Your task to perform on an android device: open app "Indeed Job Search" (install if not already installed) Image 0: 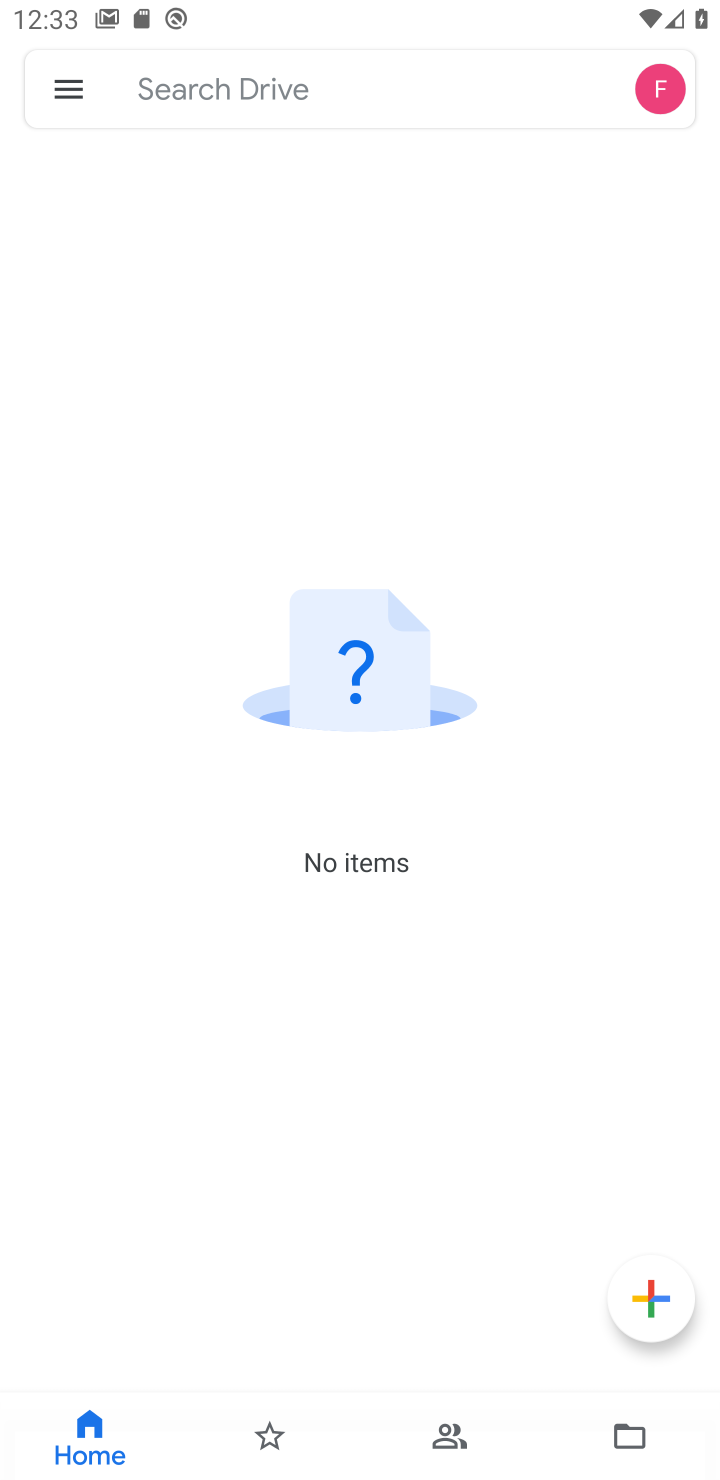
Step 0: press home button
Your task to perform on an android device: open app "Indeed Job Search" (install if not already installed) Image 1: 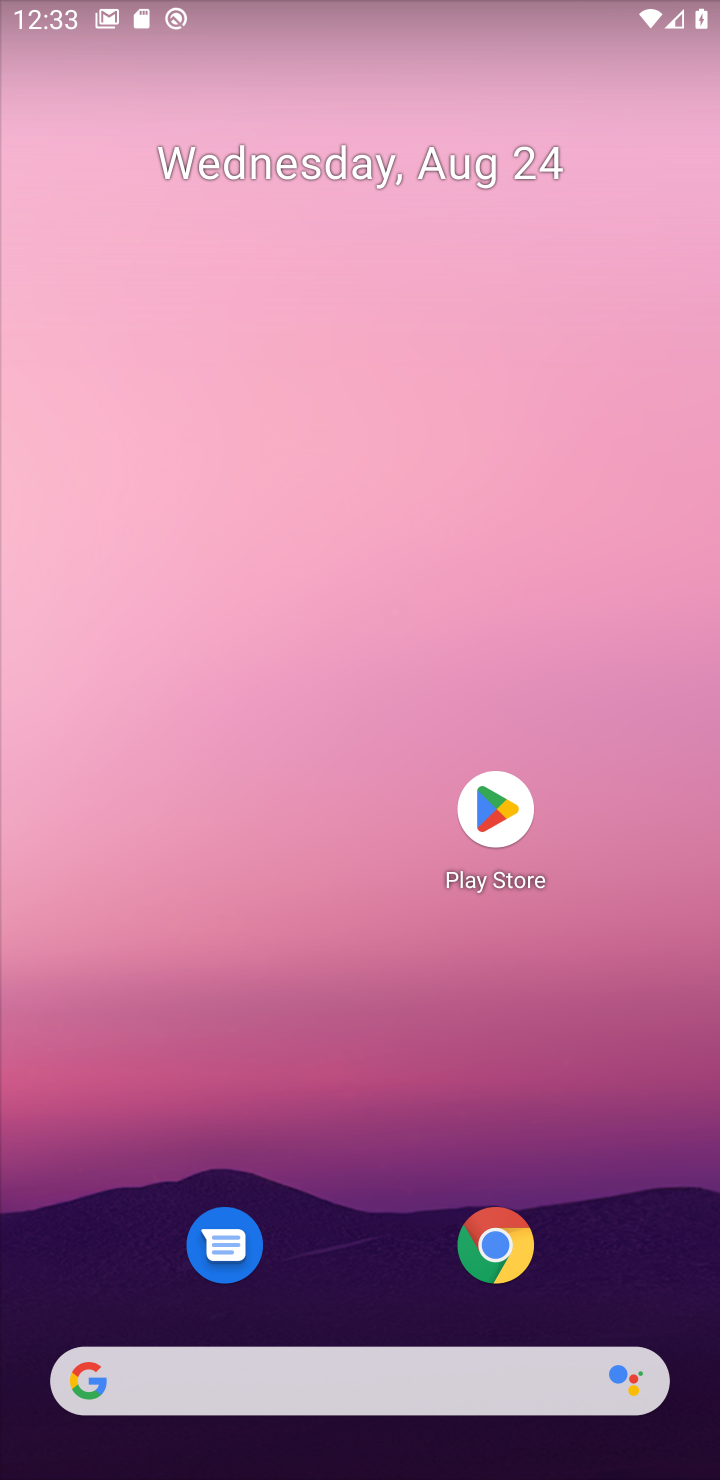
Step 1: click (483, 791)
Your task to perform on an android device: open app "Indeed Job Search" (install if not already installed) Image 2: 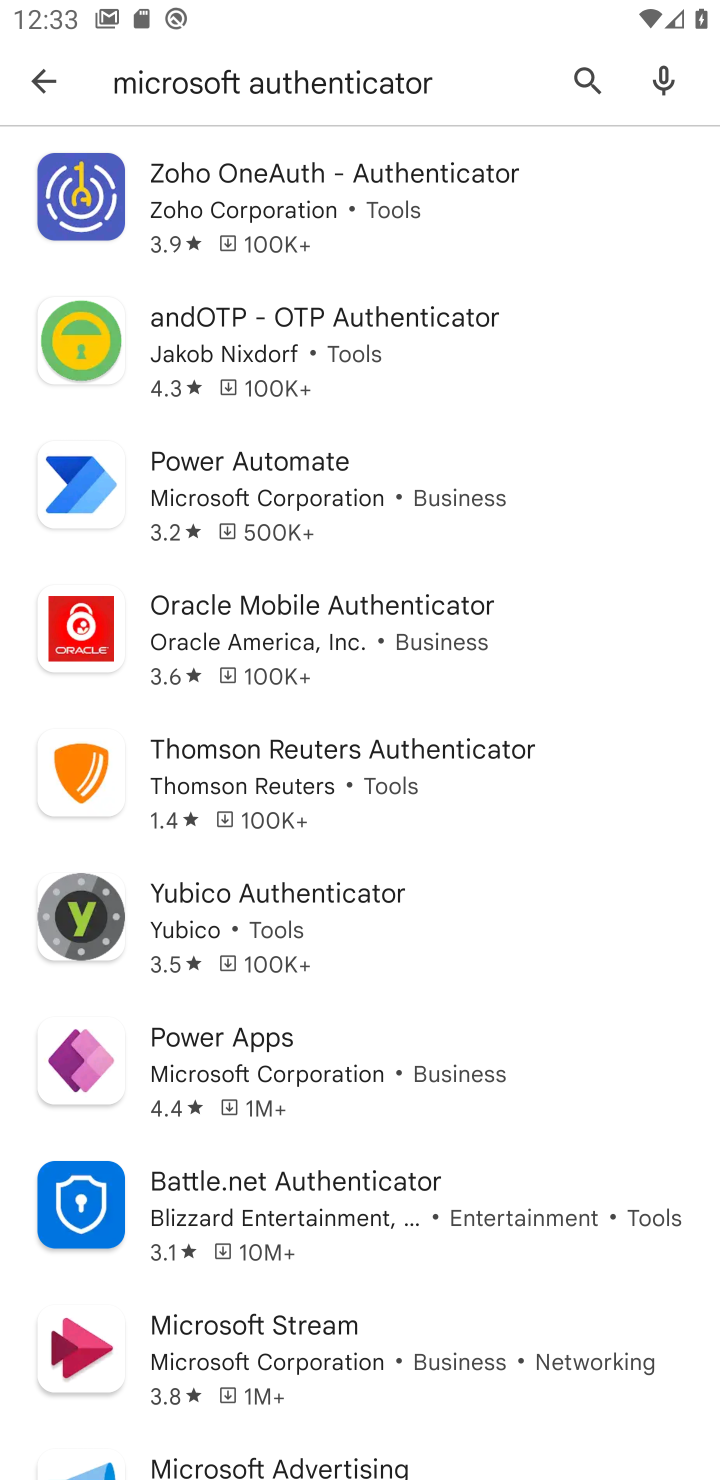
Step 2: click (590, 75)
Your task to perform on an android device: open app "Indeed Job Search" (install if not already installed) Image 3: 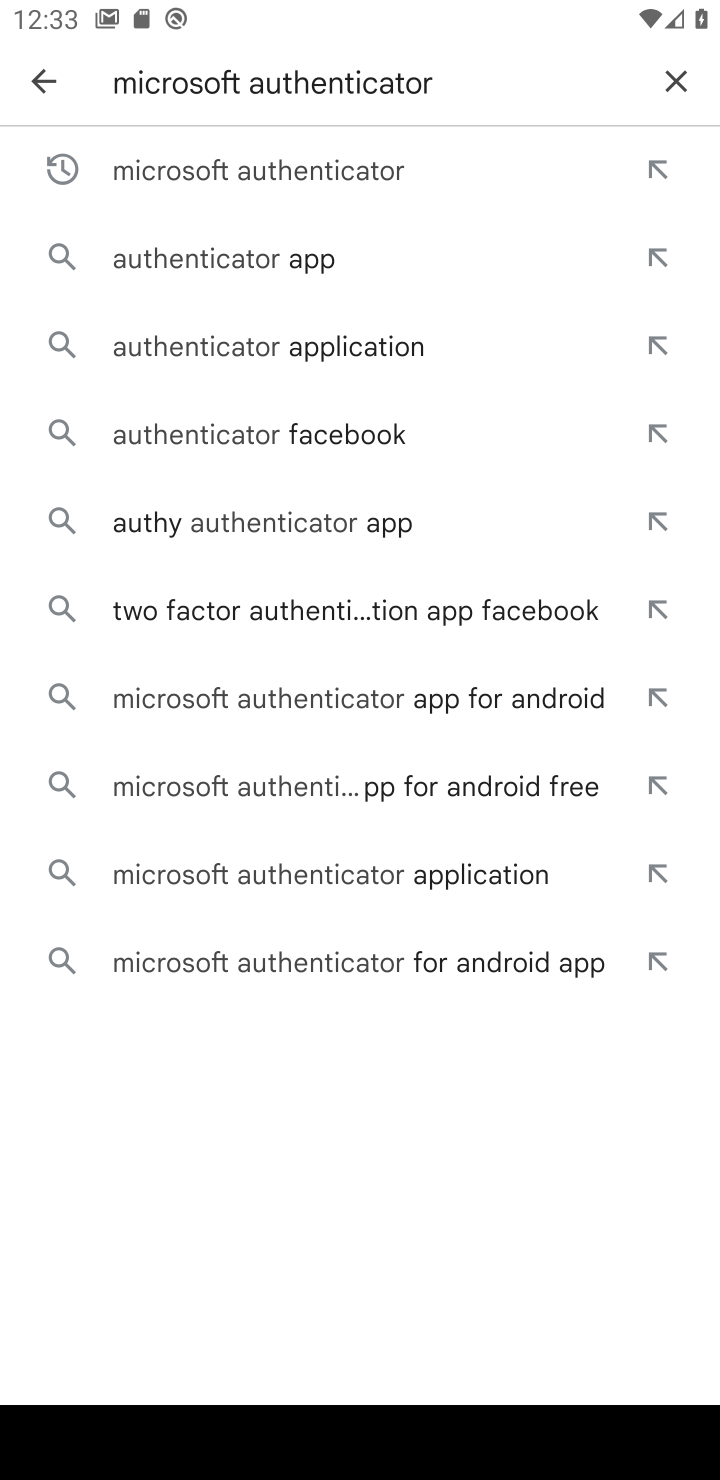
Step 3: click (679, 78)
Your task to perform on an android device: open app "Indeed Job Search" (install if not already installed) Image 4: 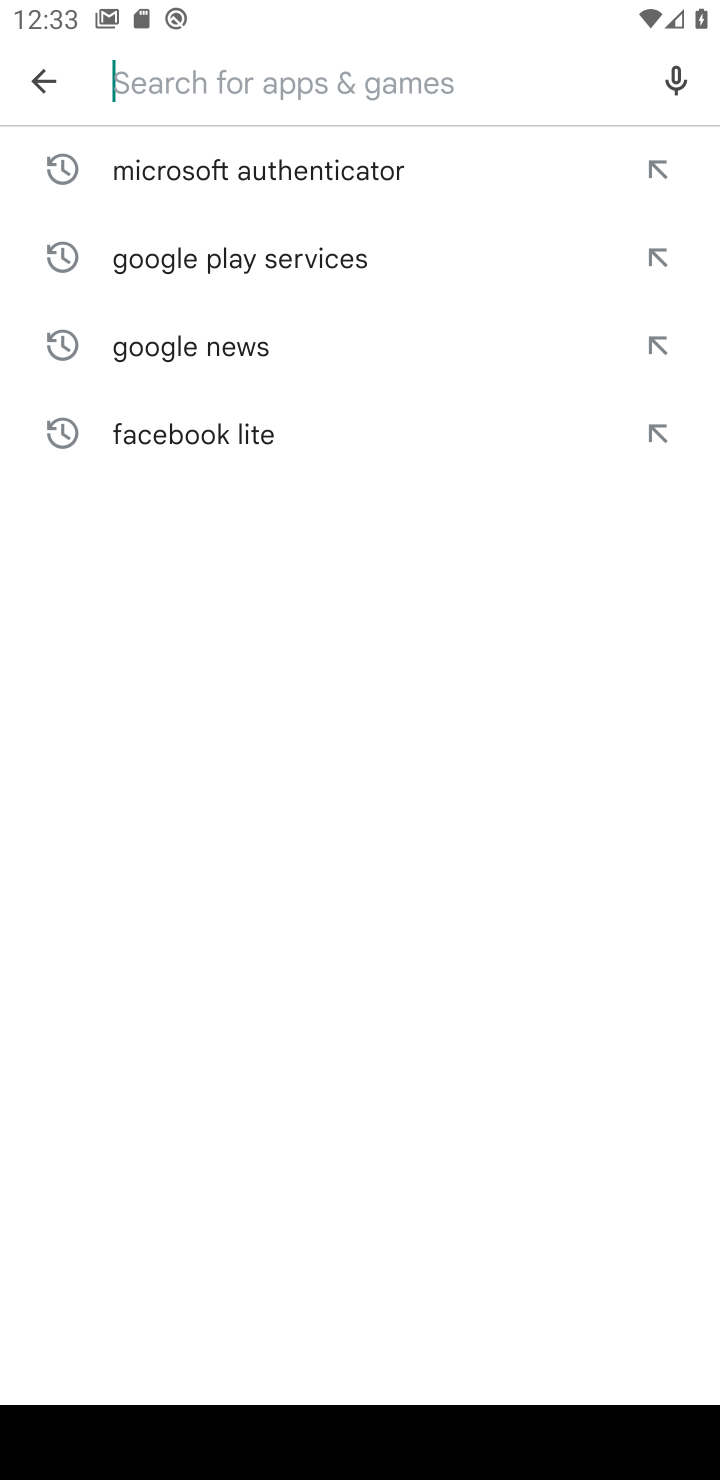
Step 4: type "Indeed Job Search"
Your task to perform on an android device: open app "Indeed Job Search" (install if not already installed) Image 5: 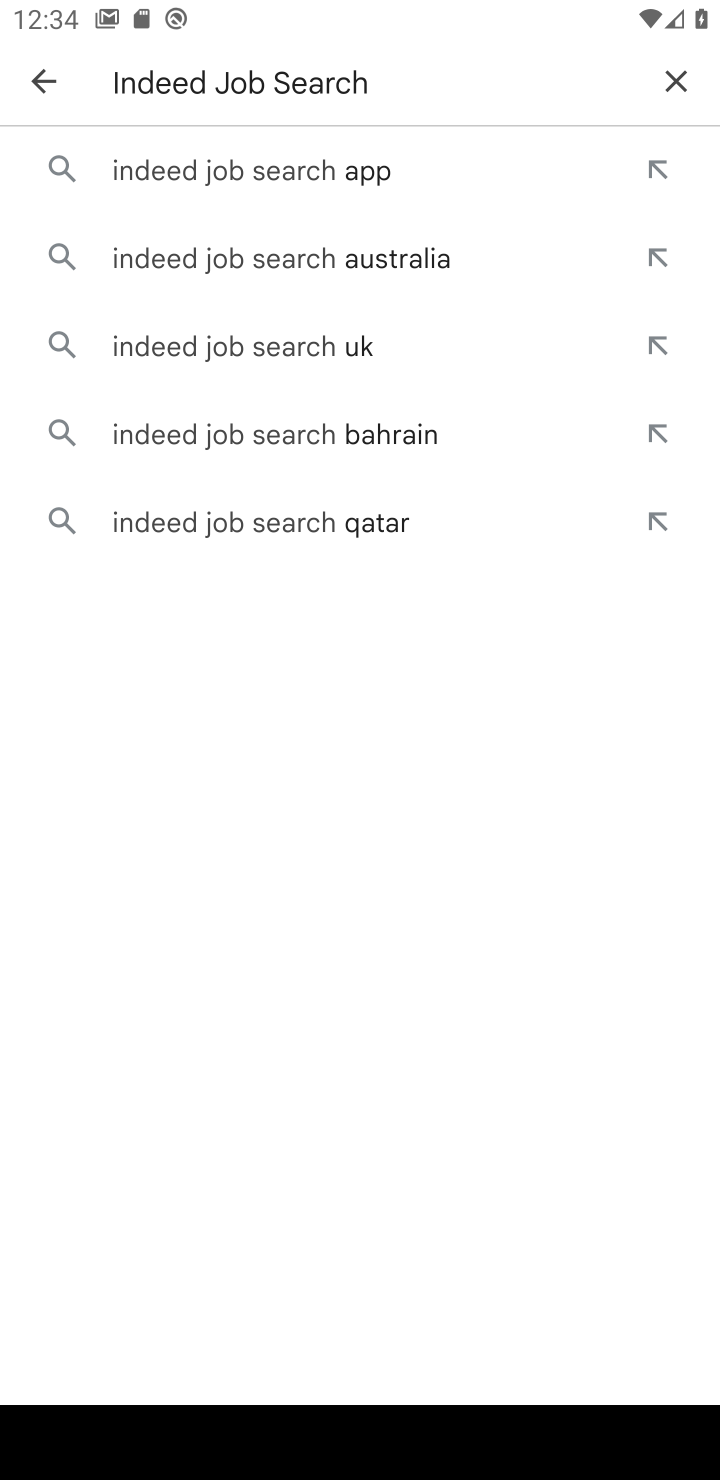
Step 5: click (337, 171)
Your task to perform on an android device: open app "Indeed Job Search" (install if not already installed) Image 6: 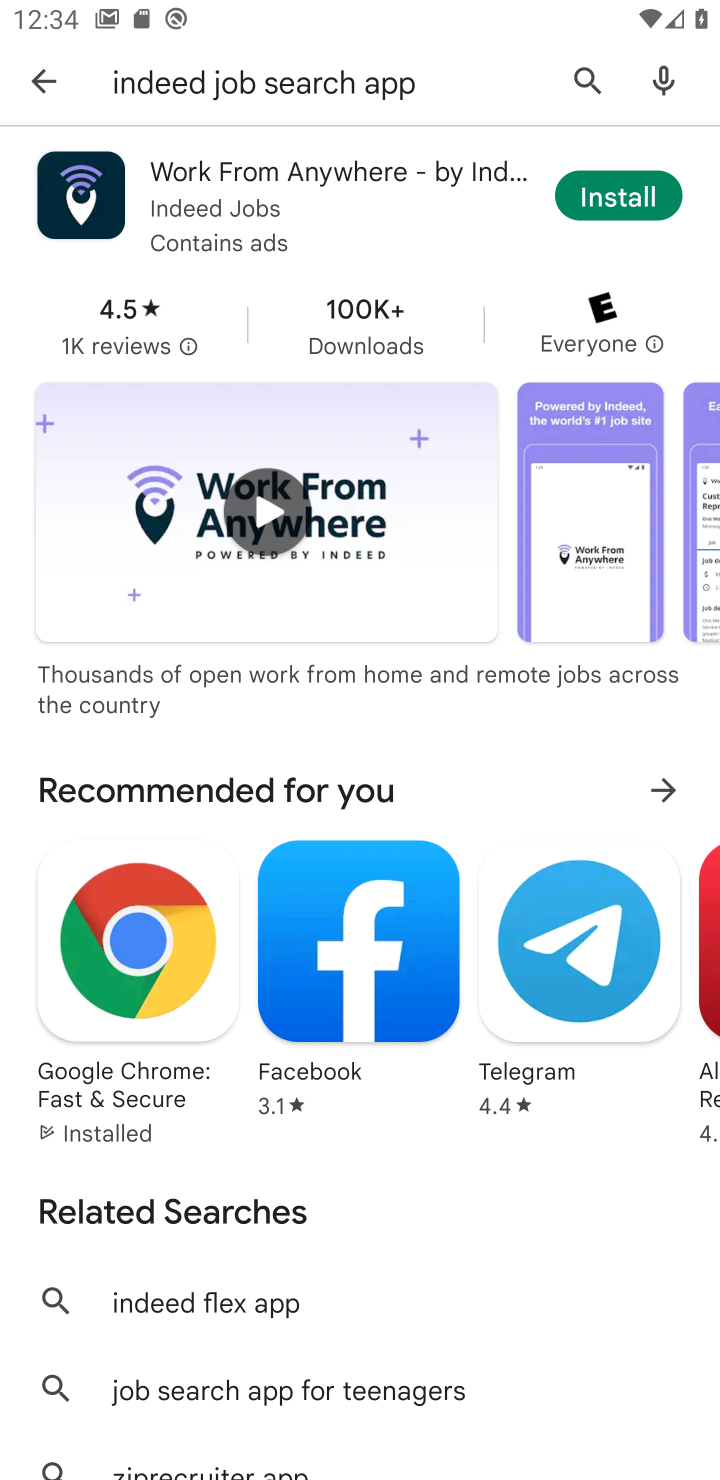
Step 6: click (651, 191)
Your task to perform on an android device: open app "Indeed Job Search" (install if not already installed) Image 7: 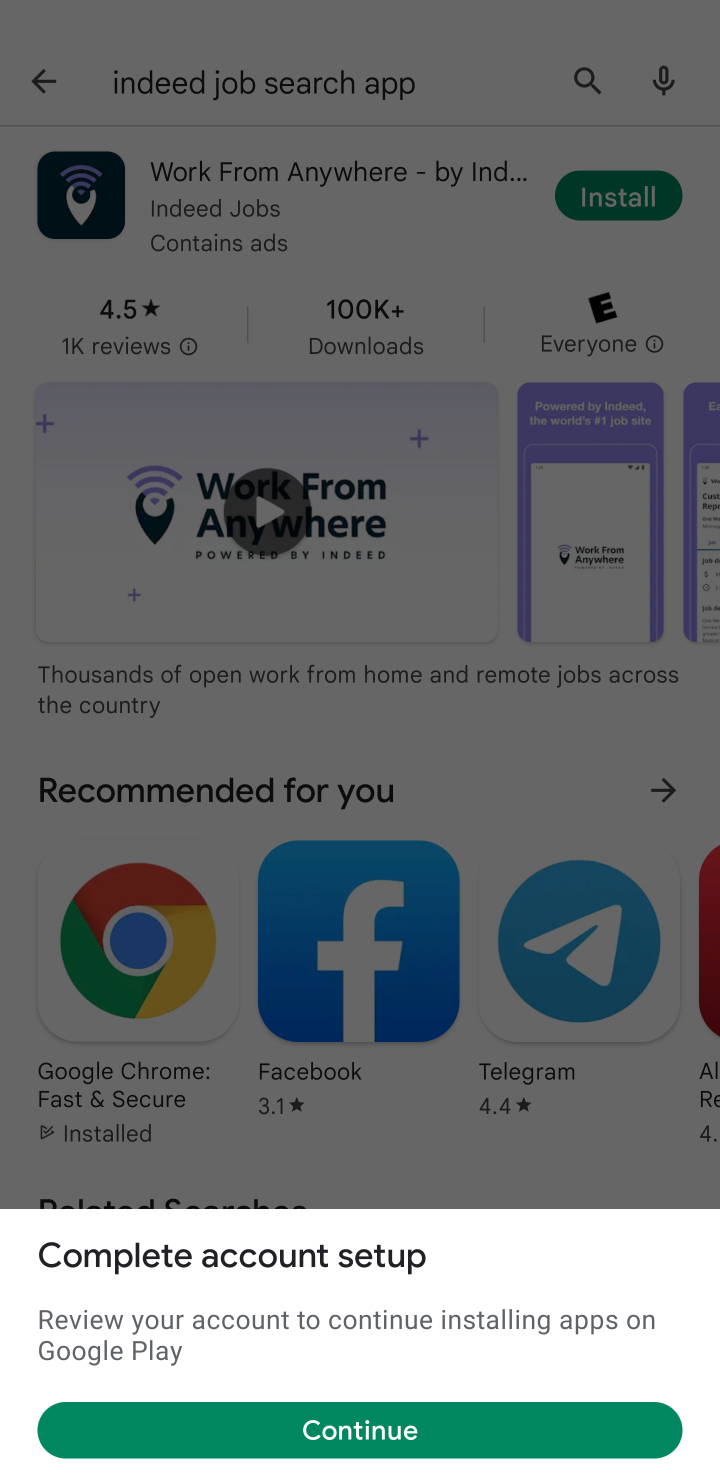
Step 7: press back button
Your task to perform on an android device: open app "Indeed Job Search" (install if not already installed) Image 8: 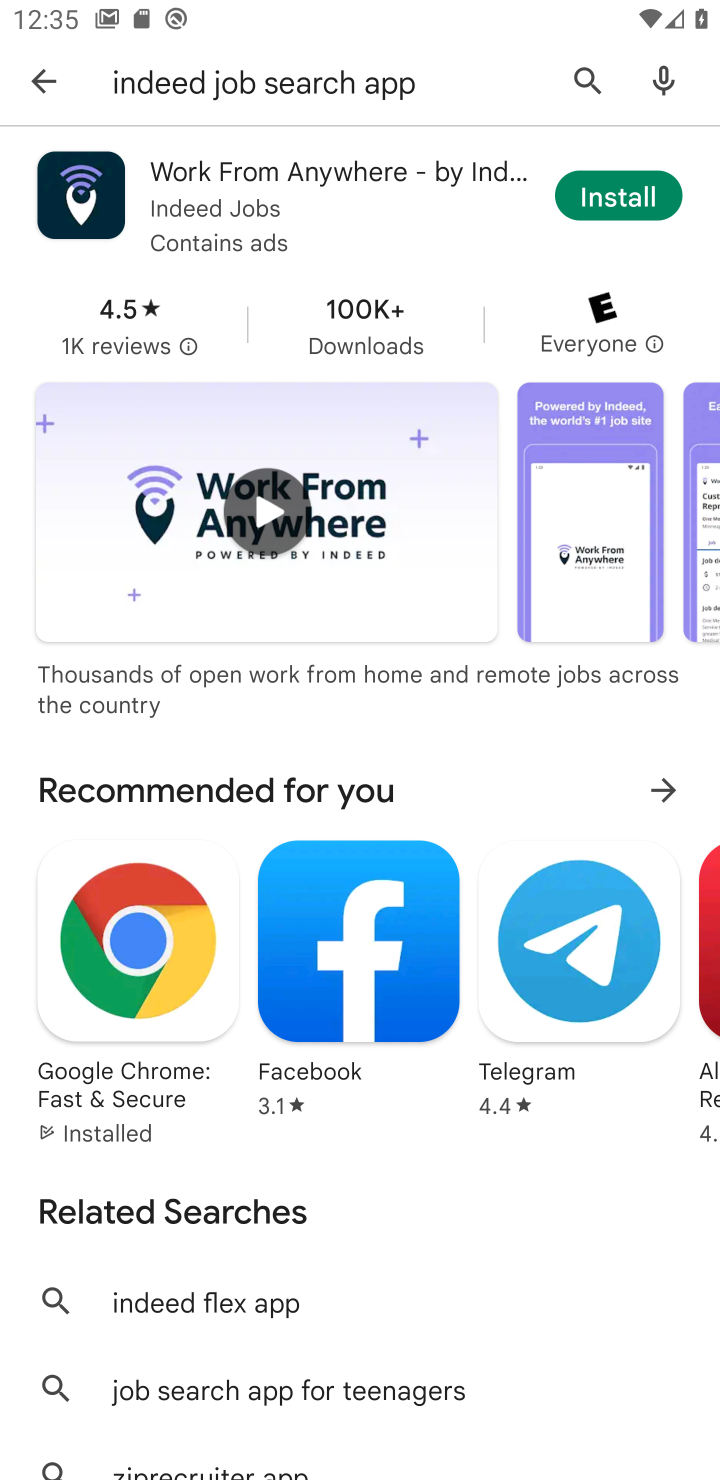
Step 8: click (579, 81)
Your task to perform on an android device: open app "Indeed Job Search" (install if not already installed) Image 9: 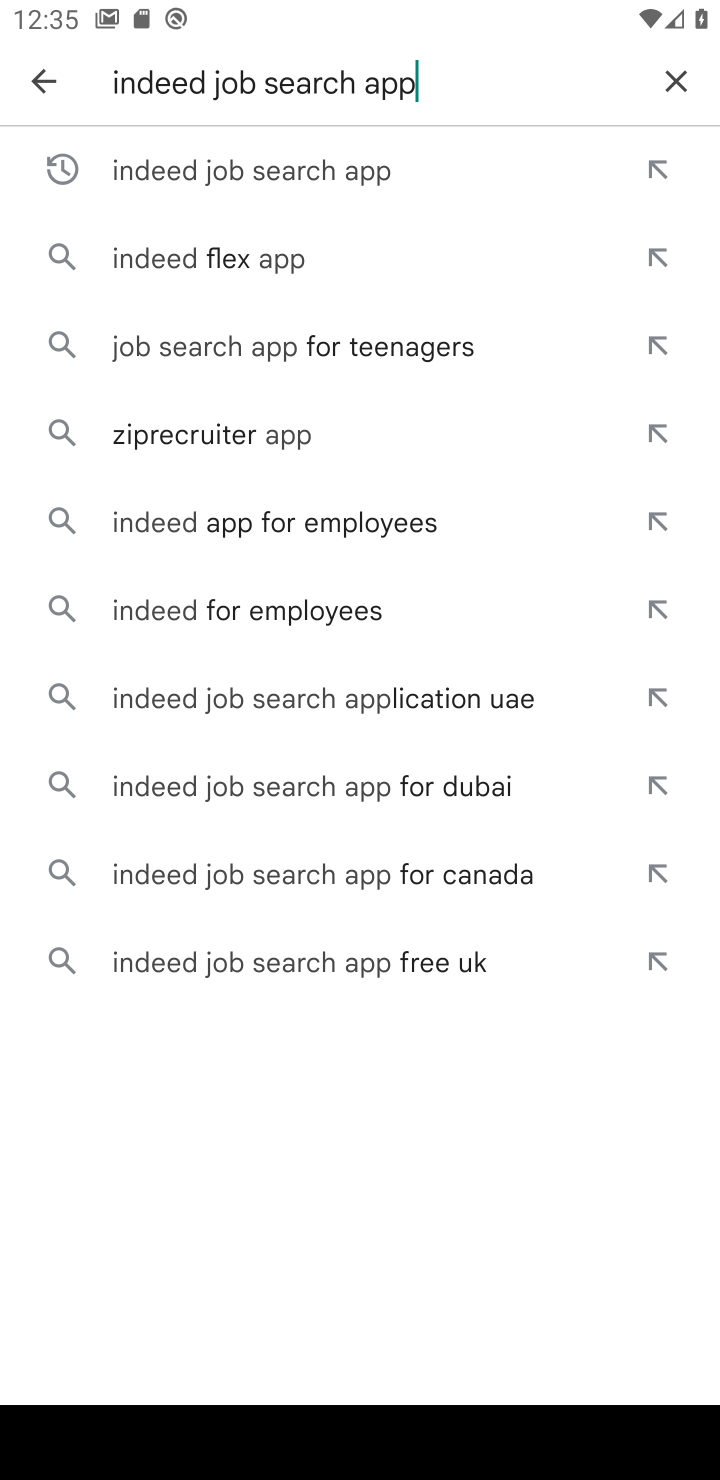
Step 9: click (277, 175)
Your task to perform on an android device: open app "Indeed Job Search" (install if not already installed) Image 10: 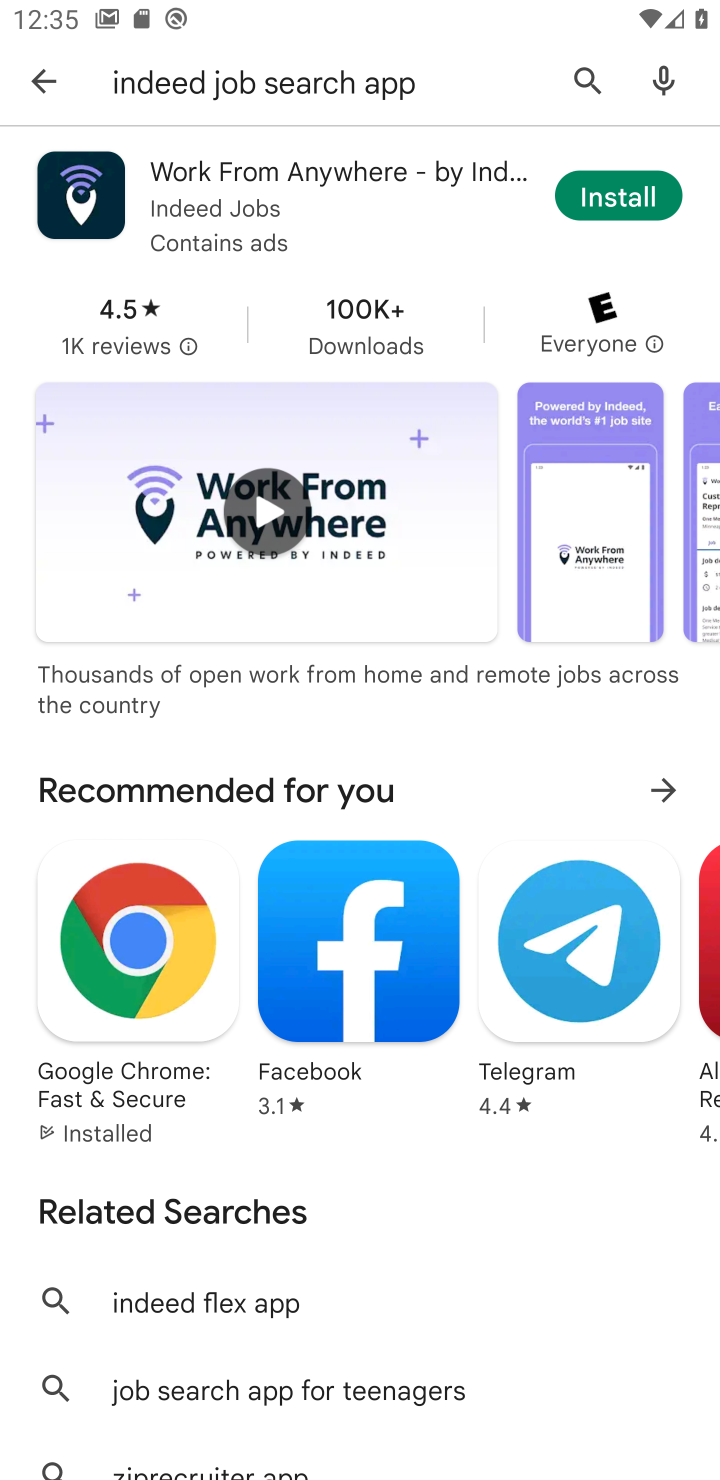
Step 10: task complete